Your task to perform on an android device: Search for sushi restaurants on Maps Image 0: 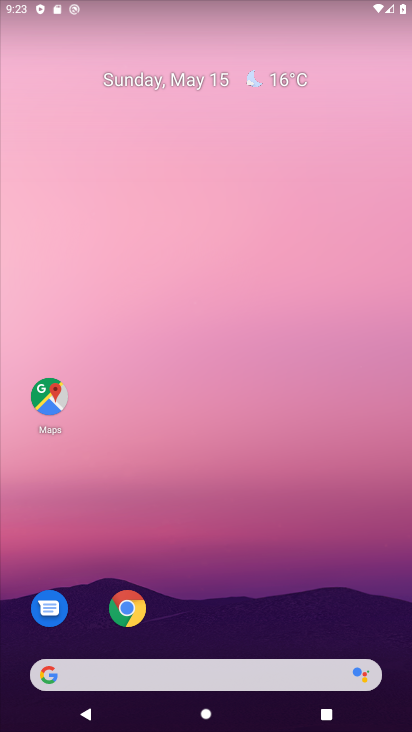
Step 0: drag from (334, 617) to (215, 5)
Your task to perform on an android device: Search for sushi restaurants on Maps Image 1: 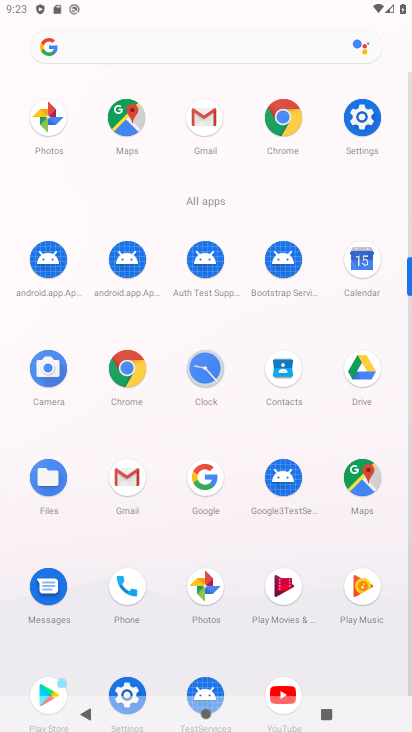
Step 1: click (355, 471)
Your task to perform on an android device: Search for sushi restaurants on Maps Image 2: 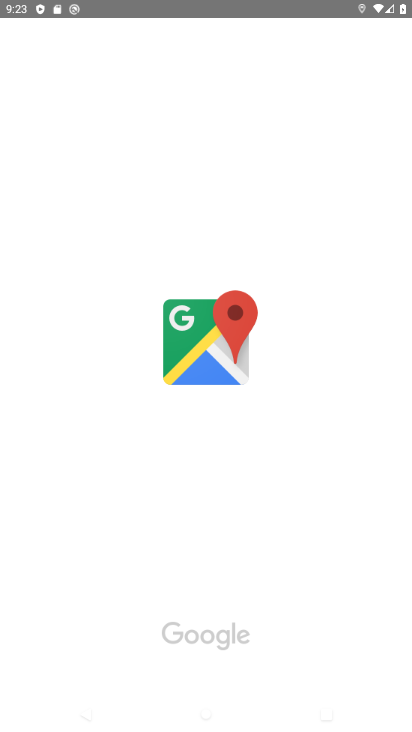
Step 2: click (360, 477)
Your task to perform on an android device: Search for sushi restaurants on Maps Image 3: 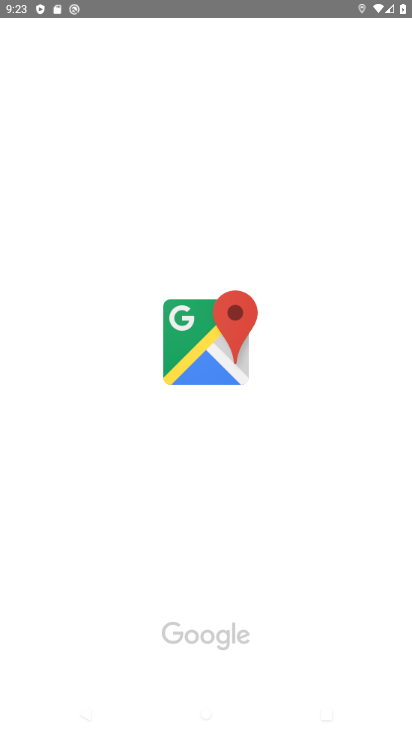
Step 3: click (367, 470)
Your task to perform on an android device: Search for sushi restaurants on Maps Image 4: 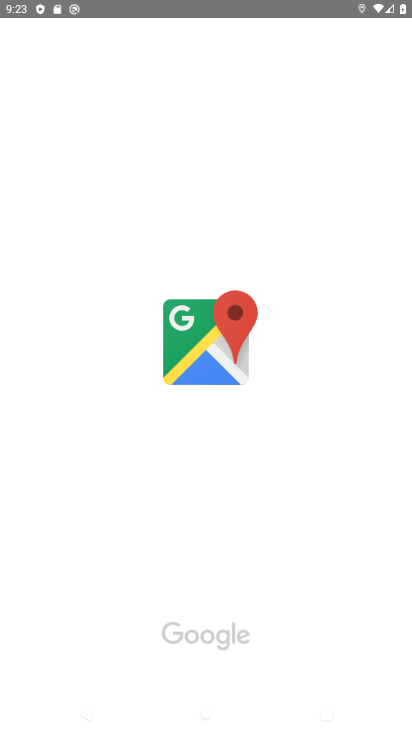
Step 4: click (359, 458)
Your task to perform on an android device: Search for sushi restaurants on Maps Image 5: 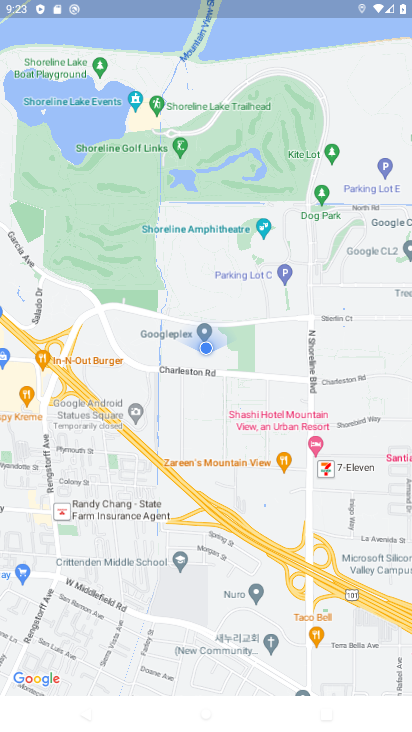
Step 5: task complete